Your task to perform on an android device: Open Google Chrome and open the bookmarks view Image 0: 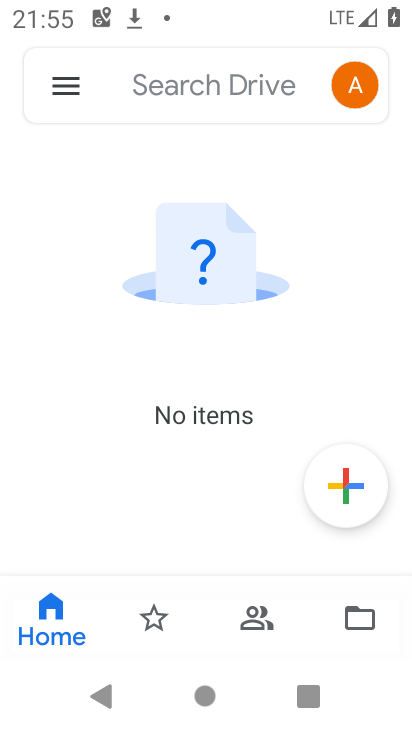
Step 0: press back button
Your task to perform on an android device: Open Google Chrome and open the bookmarks view Image 1: 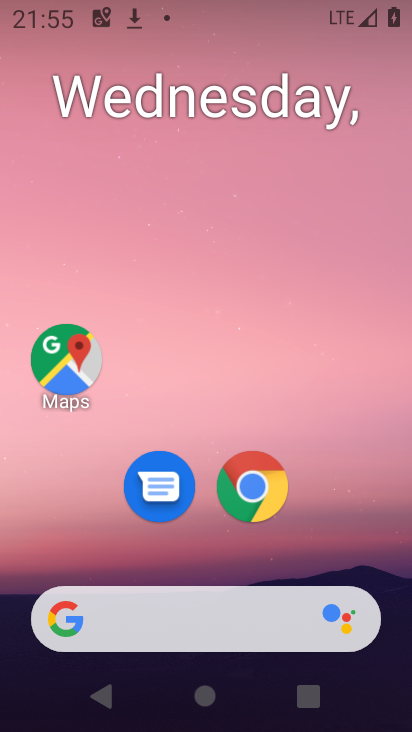
Step 1: click (259, 480)
Your task to perform on an android device: Open Google Chrome and open the bookmarks view Image 2: 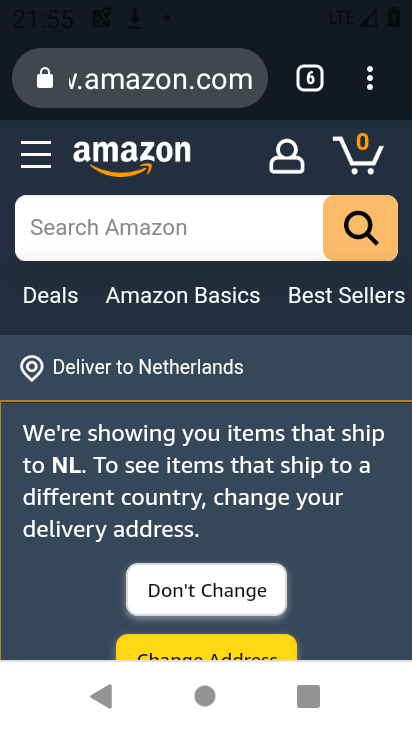
Step 2: task complete